Your task to perform on an android device: Show me the alarms in the clock app Image 0: 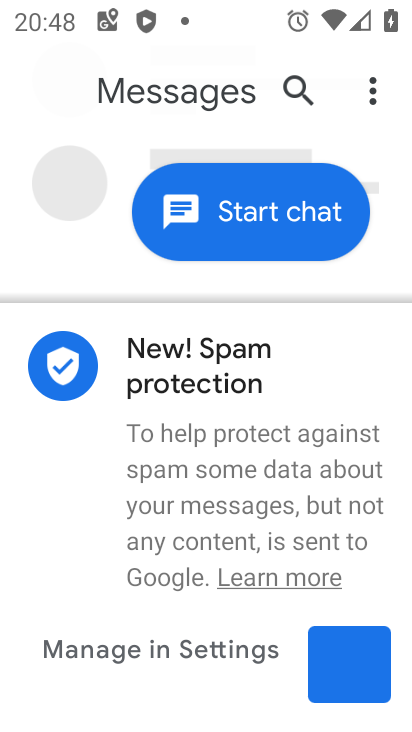
Step 0: press home button
Your task to perform on an android device: Show me the alarms in the clock app Image 1: 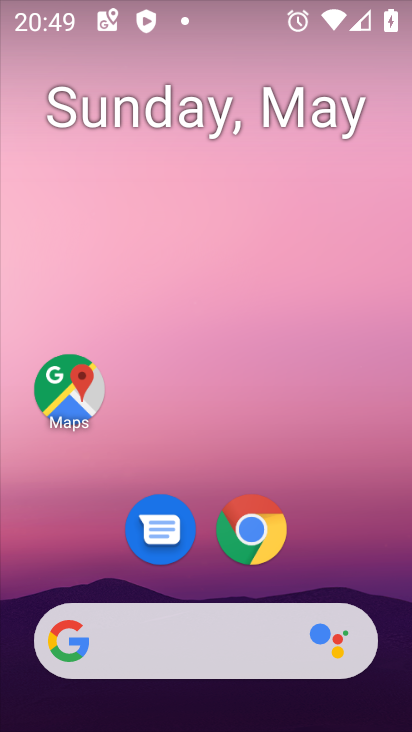
Step 1: drag from (356, 590) to (333, 9)
Your task to perform on an android device: Show me the alarms in the clock app Image 2: 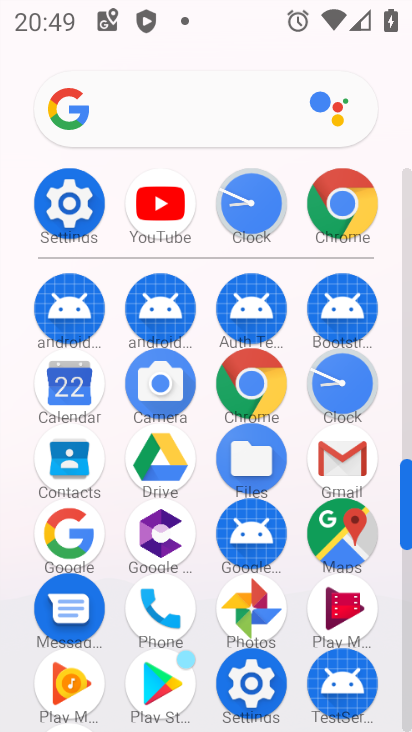
Step 2: click (246, 205)
Your task to perform on an android device: Show me the alarms in the clock app Image 3: 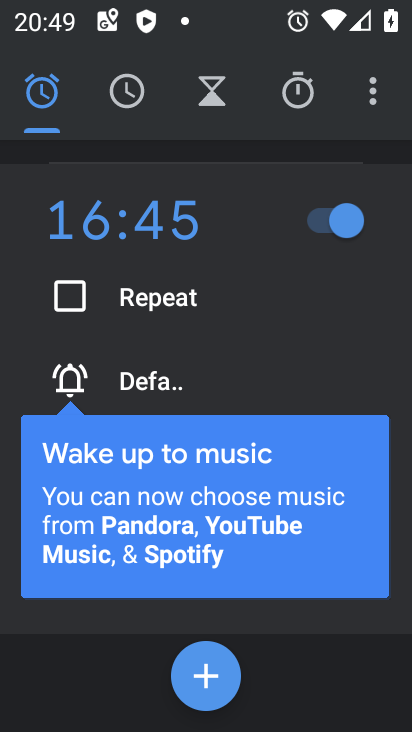
Step 3: task complete